Your task to perform on an android device: Go to Yahoo.com Image 0: 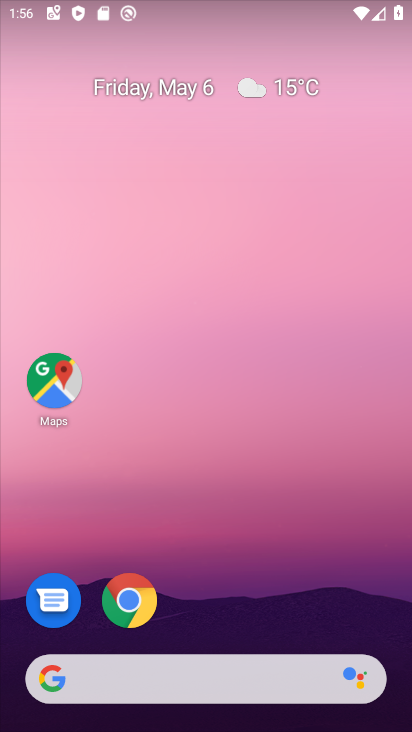
Step 0: drag from (321, 634) to (269, 210)
Your task to perform on an android device: Go to Yahoo.com Image 1: 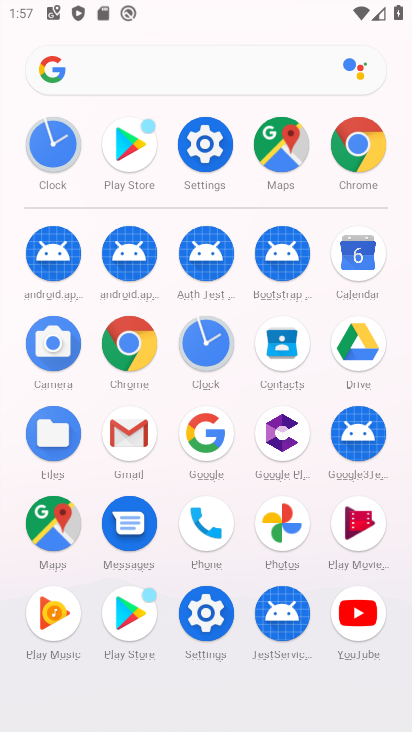
Step 1: click (125, 349)
Your task to perform on an android device: Go to Yahoo.com Image 2: 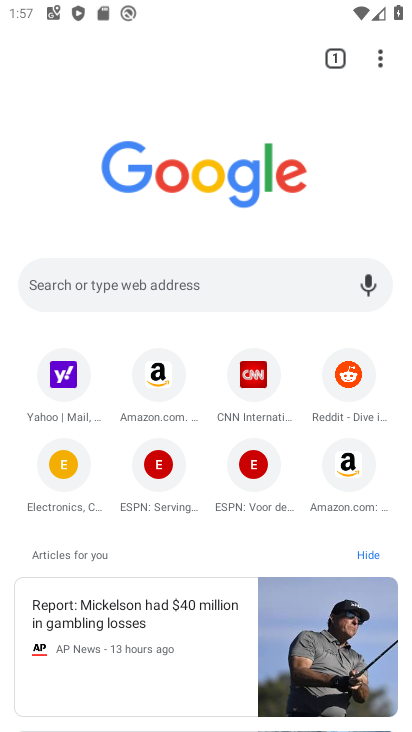
Step 2: click (79, 390)
Your task to perform on an android device: Go to Yahoo.com Image 3: 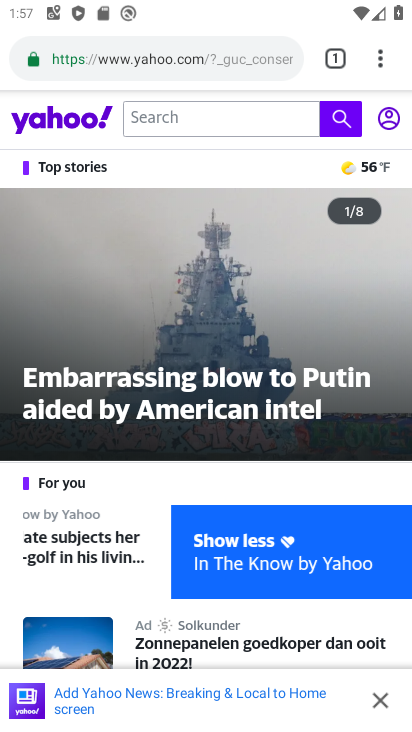
Step 3: task complete